Your task to perform on an android device: What's the weather? Image 0: 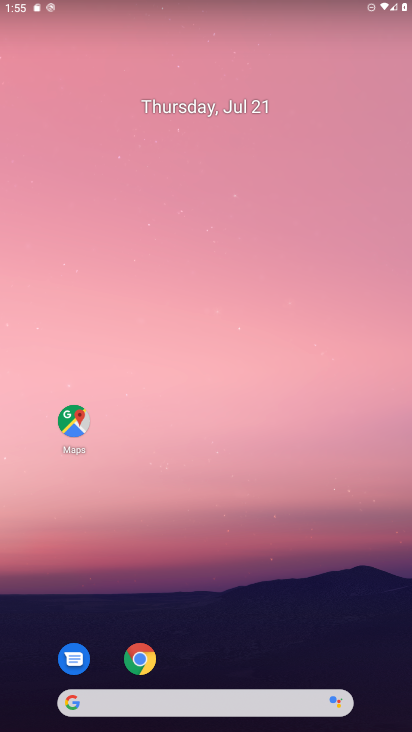
Step 0: press home button
Your task to perform on an android device: What's the weather? Image 1: 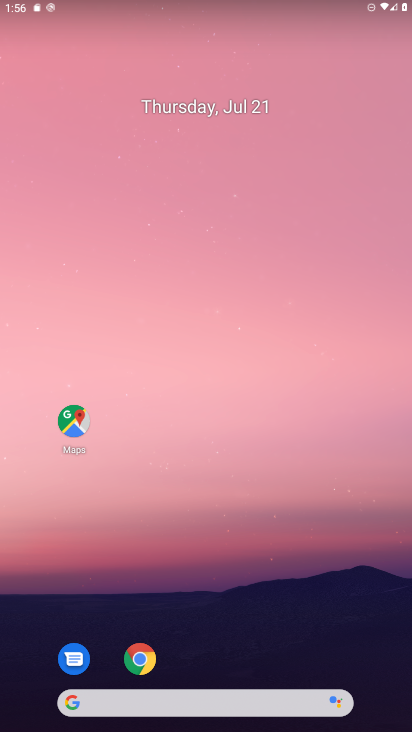
Step 1: click (124, 696)
Your task to perform on an android device: What's the weather? Image 2: 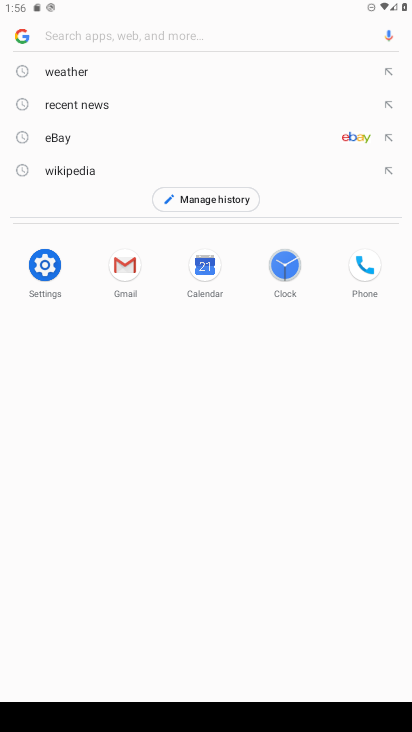
Step 2: click (104, 62)
Your task to perform on an android device: What's the weather? Image 3: 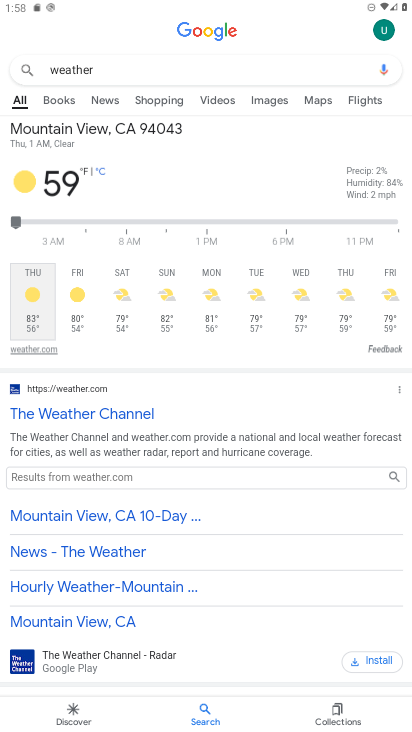
Step 3: task complete